Your task to perform on an android device: Open Android settings Image 0: 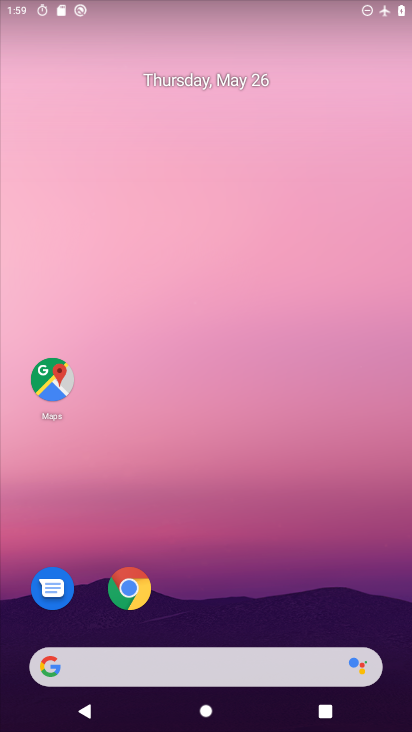
Step 0: drag from (391, 622) to (369, 163)
Your task to perform on an android device: Open Android settings Image 1: 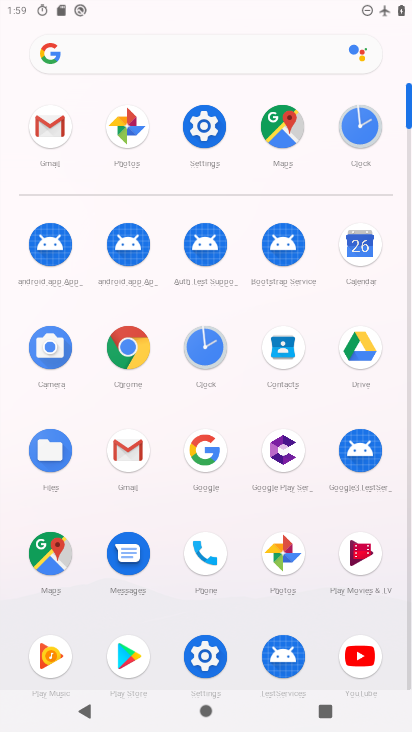
Step 1: click (193, 128)
Your task to perform on an android device: Open Android settings Image 2: 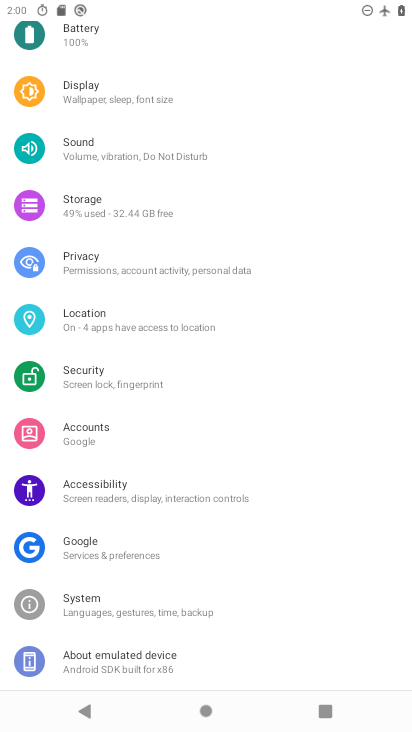
Step 2: task complete